Your task to perform on an android device: Open the stopwatch Image 0: 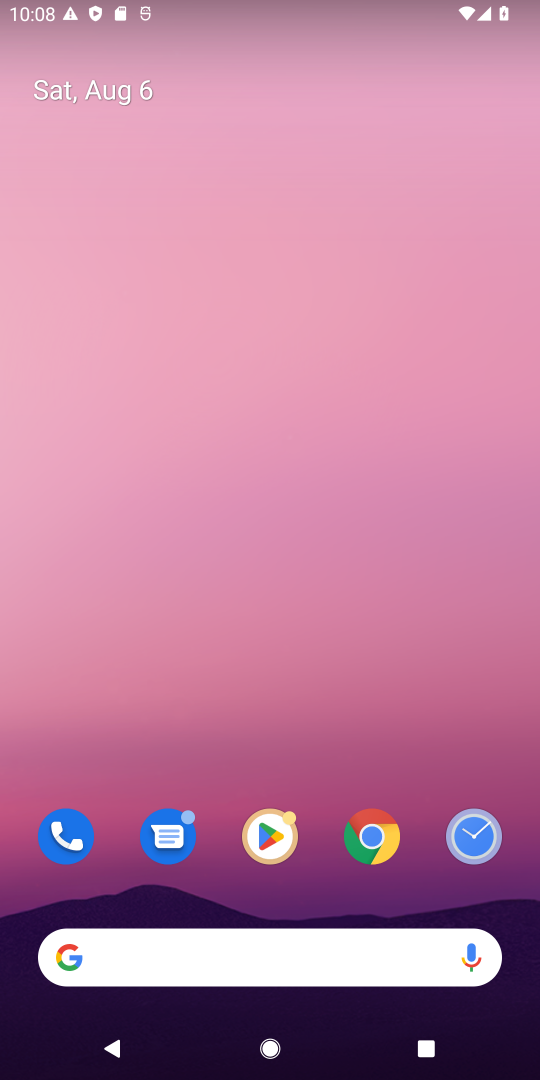
Step 0: click (463, 852)
Your task to perform on an android device: Open the stopwatch Image 1: 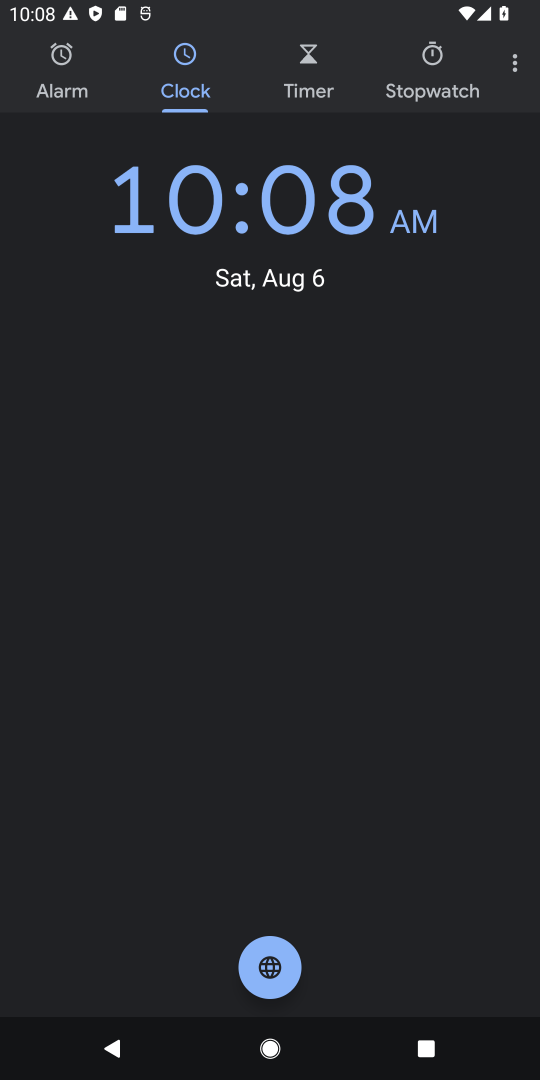
Step 1: click (423, 74)
Your task to perform on an android device: Open the stopwatch Image 2: 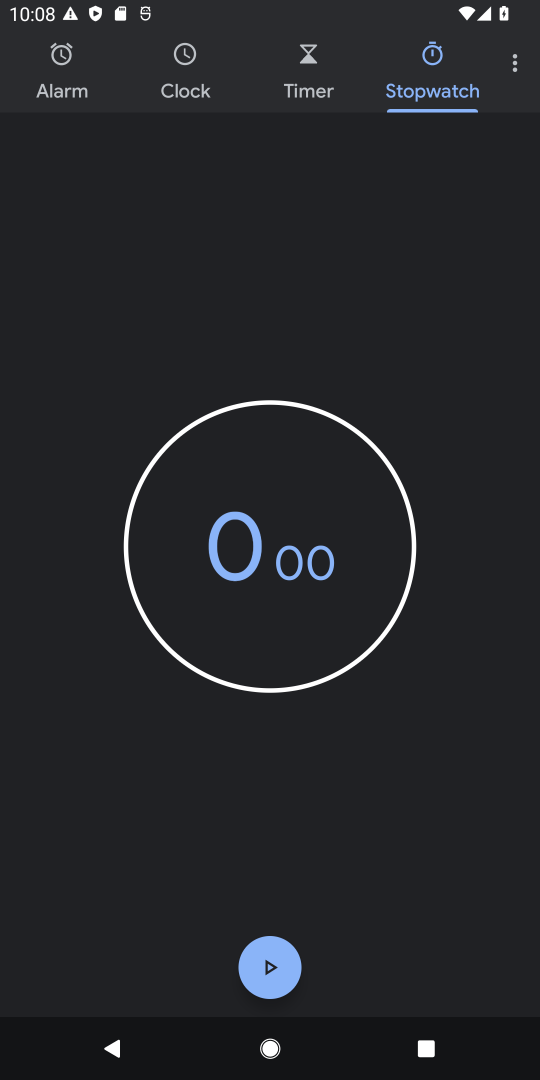
Step 2: task complete